Your task to perform on an android device: Go to network settings Image 0: 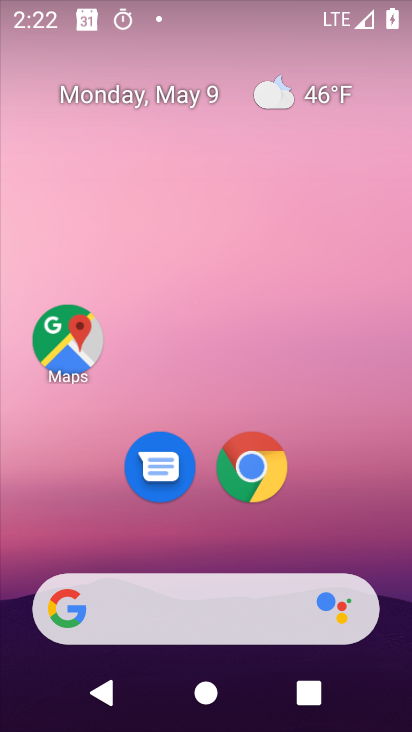
Step 0: drag from (342, 449) to (291, 41)
Your task to perform on an android device: Go to network settings Image 1: 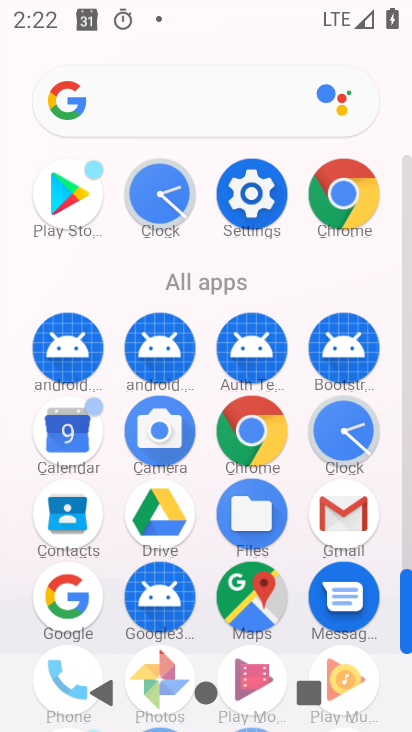
Step 1: click (261, 187)
Your task to perform on an android device: Go to network settings Image 2: 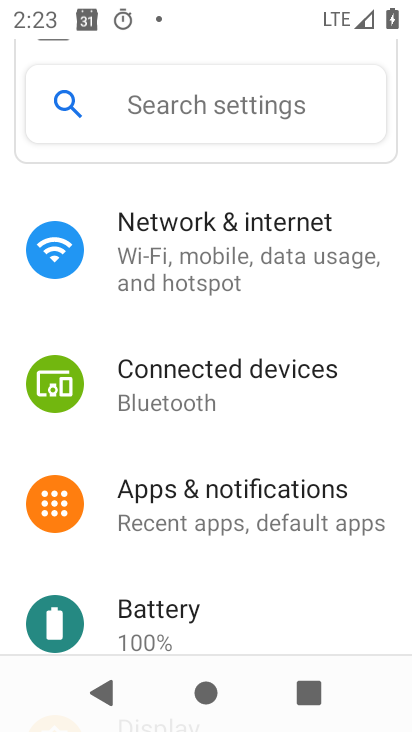
Step 2: click (223, 210)
Your task to perform on an android device: Go to network settings Image 3: 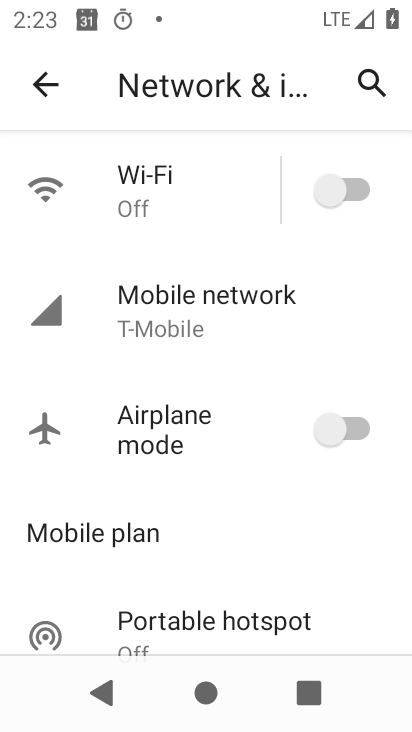
Step 3: task complete